Your task to perform on an android device: Search for the best vacuum on Amazon. Image 0: 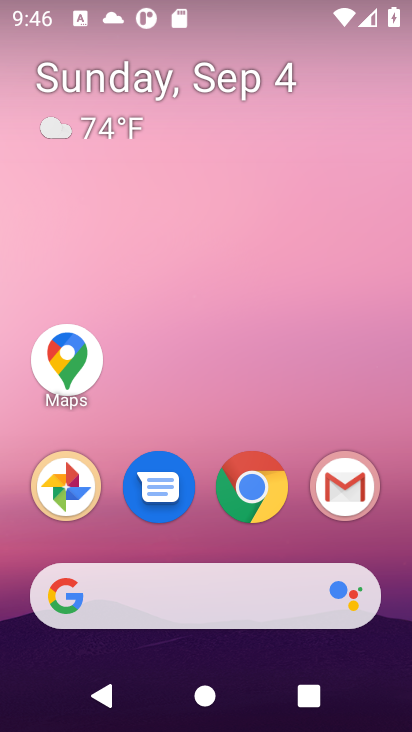
Step 0: click (247, 582)
Your task to perform on an android device: Search for the best vacuum on Amazon. Image 1: 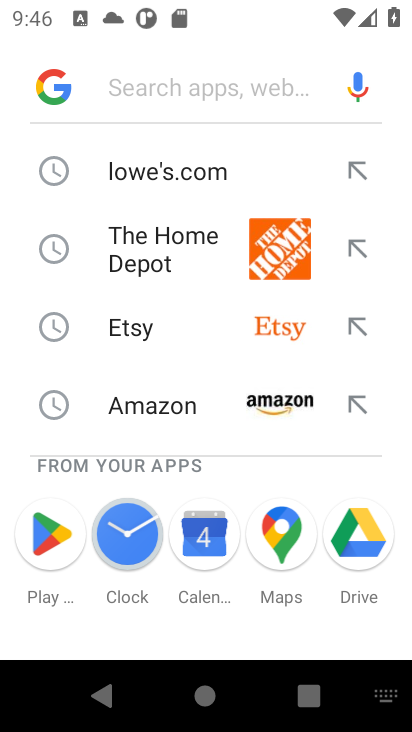
Step 1: click (266, 419)
Your task to perform on an android device: Search for the best vacuum on Amazon. Image 2: 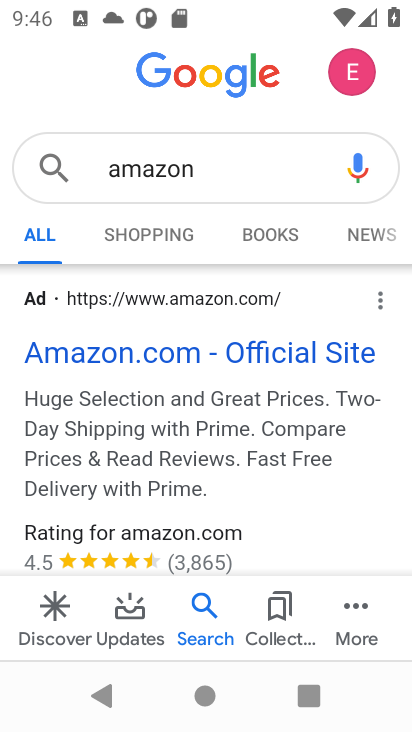
Step 2: click (244, 362)
Your task to perform on an android device: Search for the best vacuum on Amazon. Image 3: 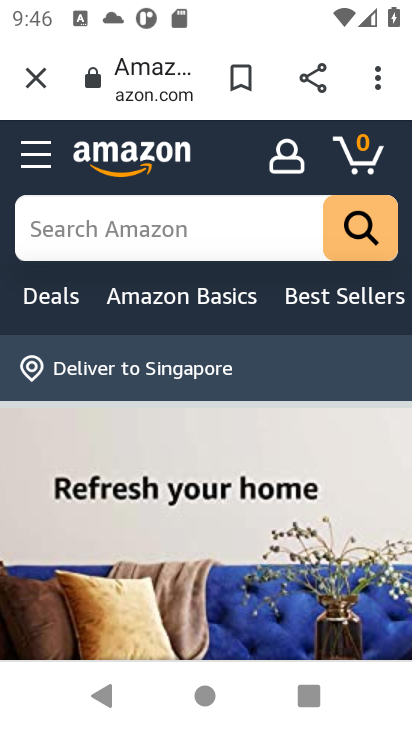
Step 3: click (179, 233)
Your task to perform on an android device: Search for the best vacuum on Amazon. Image 4: 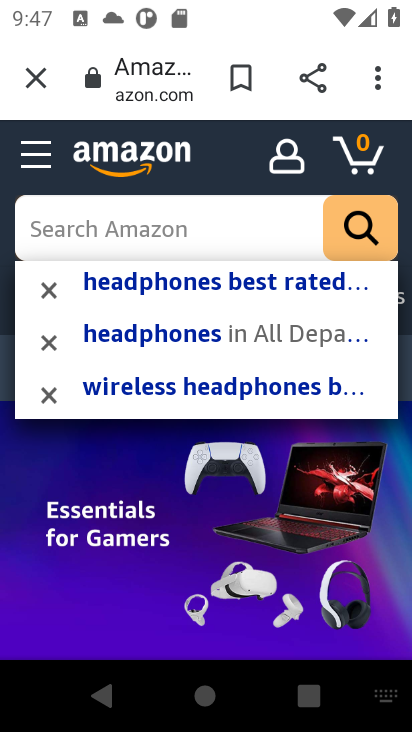
Step 4: type "best vacuum "
Your task to perform on an android device: Search for the best vacuum on Amazon. Image 5: 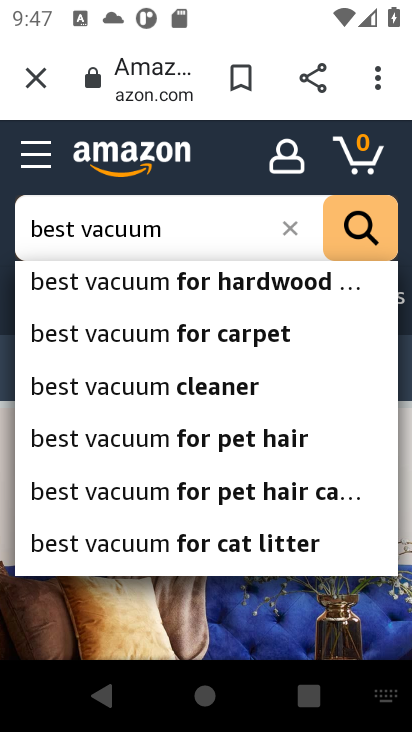
Step 5: click (372, 215)
Your task to perform on an android device: Search for the best vacuum on Amazon. Image 6: 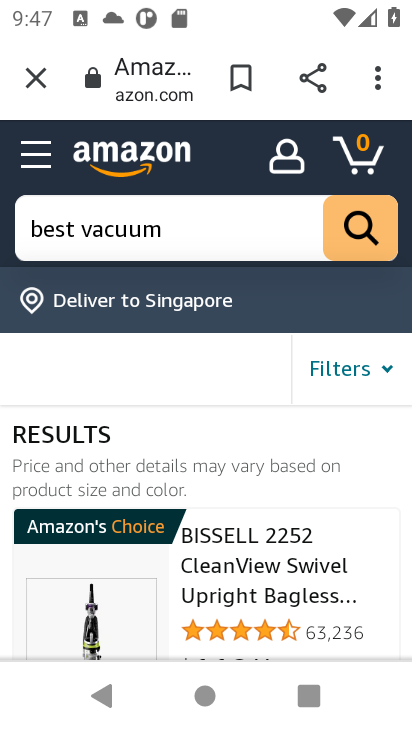
Step 6: task complete